Your task to perform on an android device: delete a single message in the gmail app Image 0: 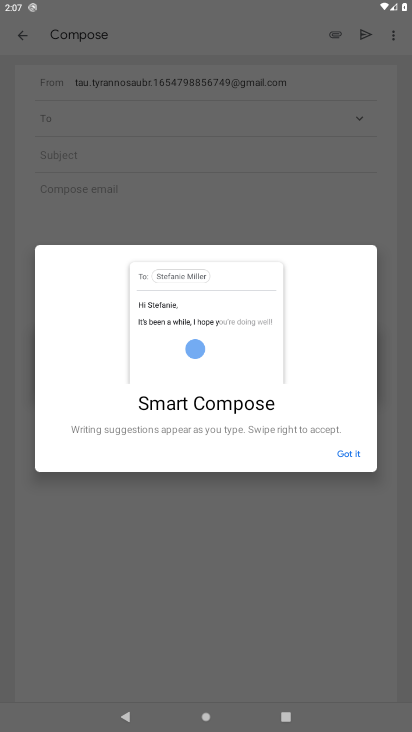
Step 0: press home button
Your task to perform on an android device: delete a single message in the gmail app Image 1: 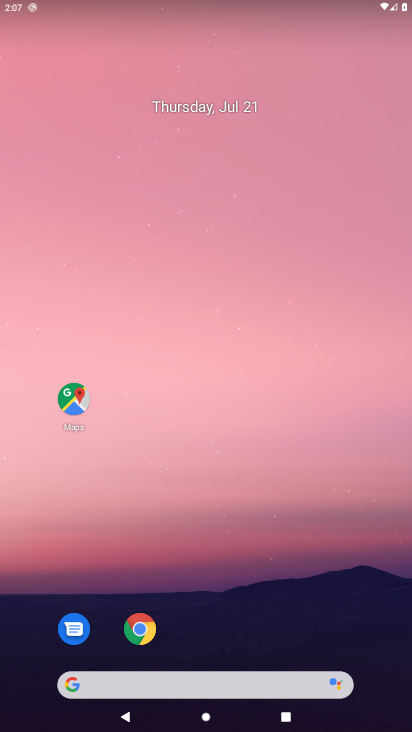
Step 1: drag from (15, 715) to (279, 199)
Your task to perform on an android device: delete a single message in the gmail app Image 2: 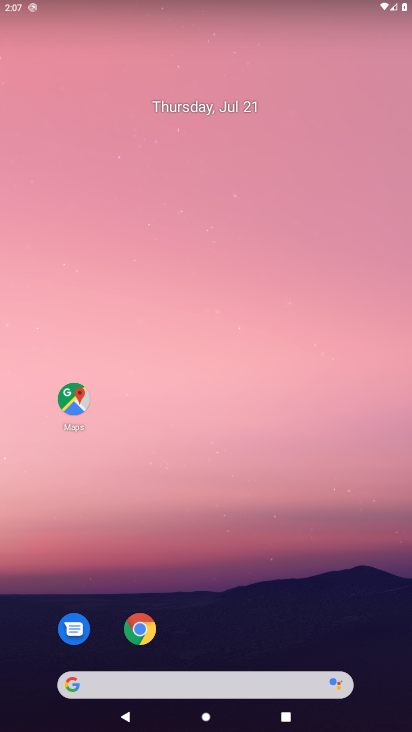
Step 2: drag from (26, 693) to (256, 224)
Your task to perform on an android device: delete a single message in the gmail app Image 3: 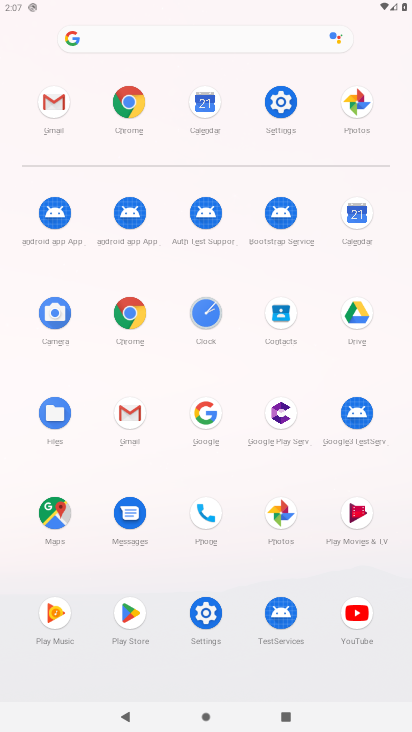
Step 3: click (119, 427)
Your task to perform on an android device: delete a single message in the gmail app Image 4: 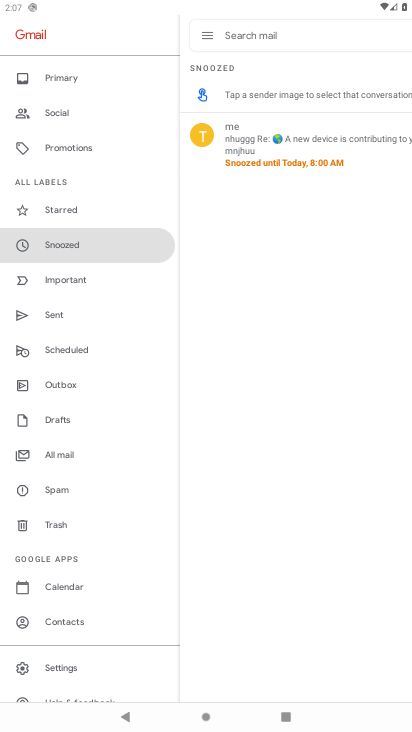
Step 4: click (71, 80)
Your task to perform on an android device: delete a single message in the gmail app Image 5: 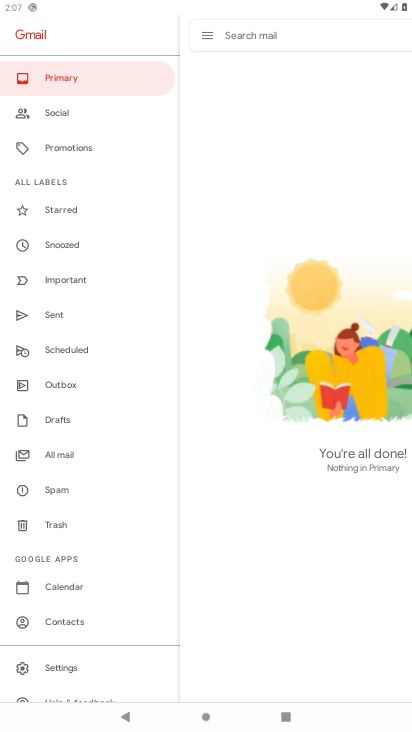
Step 5: task complete